Your task to perform on an android device: turn off airplane mode Image 0: 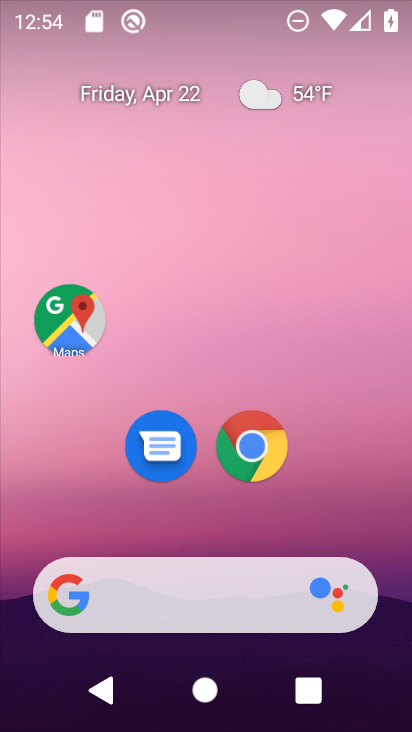
Step 0: drag from (394, 541) to (329, 155)
Your task to perform on an android device: turn off airplane mode Image 1: 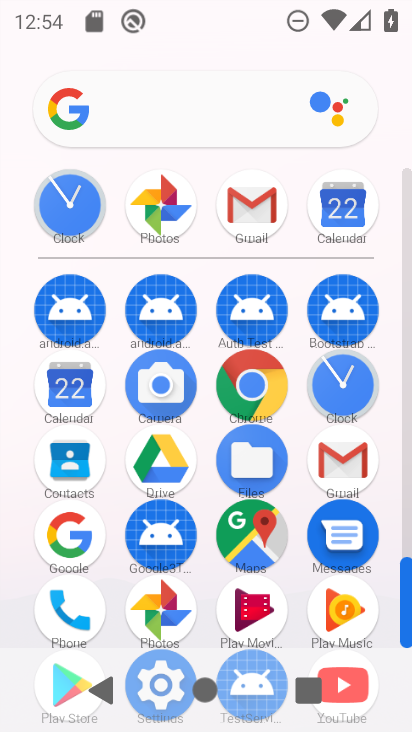
Step 1: drag from (390, 599) to (377, 463)
Your task to perform on an android device: turn off airplane mode Image 2: 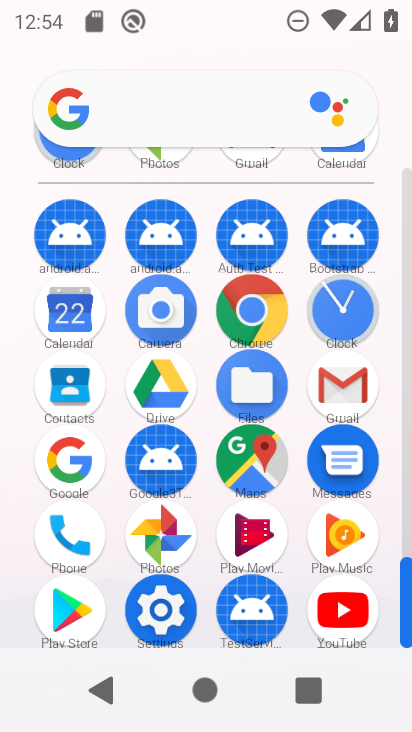
Step 2: click (148, 612)
Your task to perform on an android device: turn off airplane mode Image 3: 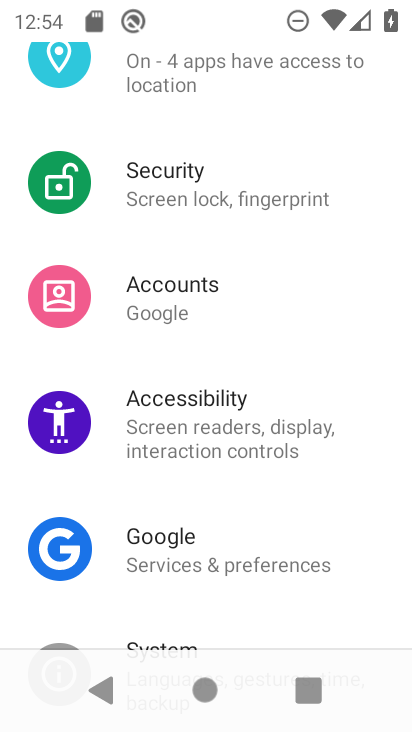
Step 3: drag from (279, 119) to (293, 408)
Your task to perform on an android device: turn off airplane mode Image 4: 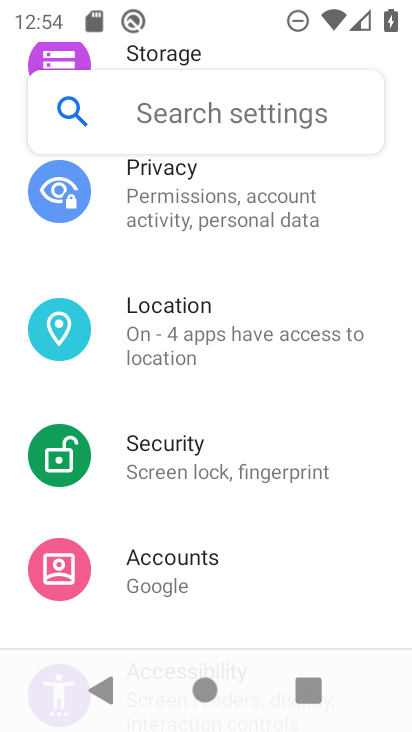
Step 4: drag from (288, 228) to (377, 728)
Your task to perform on an android device: turn off airplane mode Image 5: 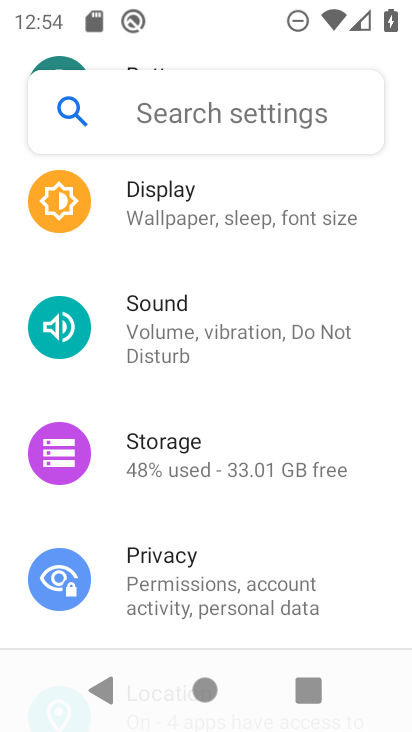
Step 5: drag from (293, 183) to (301, 531)
Your task to perform on an android device: turn off airplane mode Image 6: 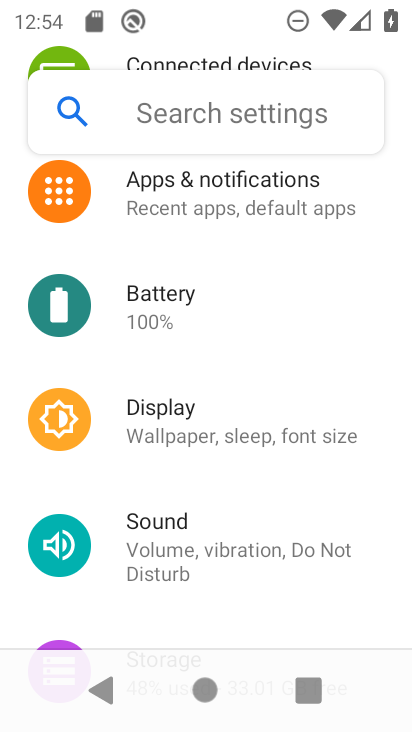
Step 6: drag from (265, 234) to (279, 512)
Your task to perform on an android device: turn off airplane mode Image 7: 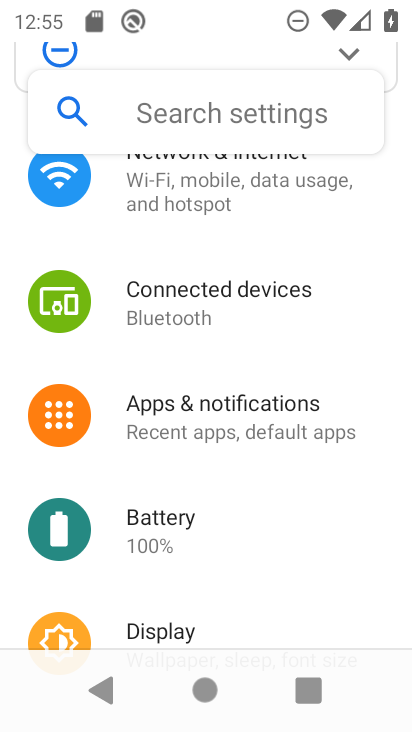
Step 7: click (264, 199)
Your task to perform on an android device: turn off airplane mode Image 8: 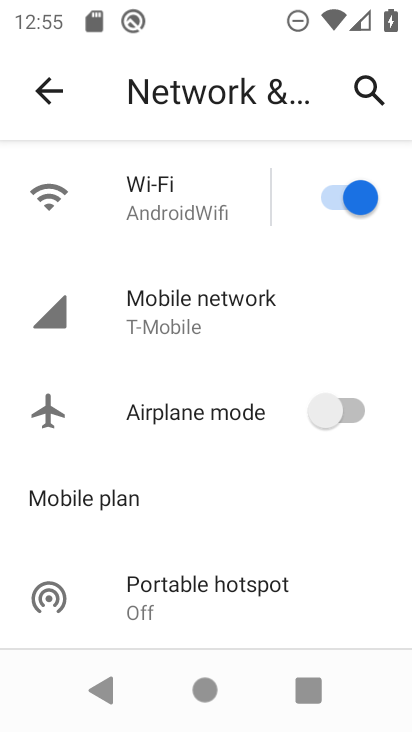
Step 8: task complete